Your task to perform on an android device: When is my next meeting? Image 0: 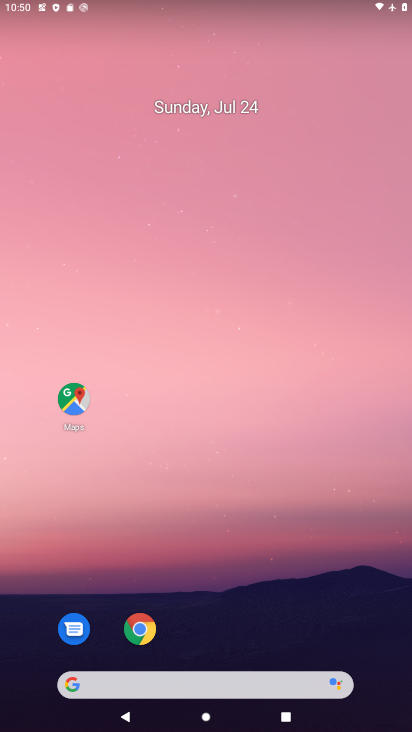
Step 0: drag from (256, 257) to (254, 96)
Your task to perform on an android device: When is my next meeting? Image 1: 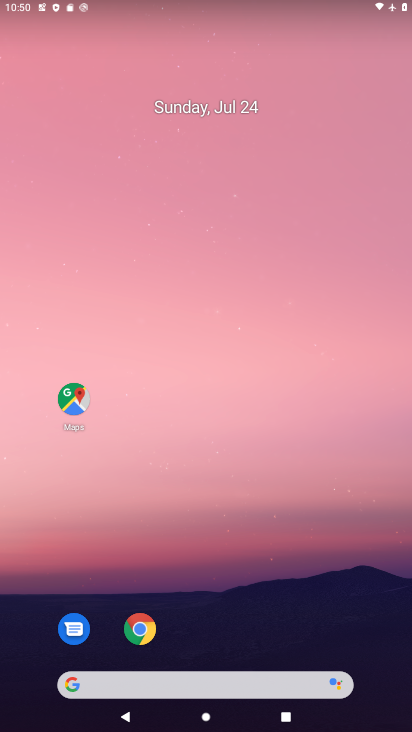
Step 1: drag from (257, 637) to (255, 4)
Your task to perform on an android device: When is my next meeting? Image 2: 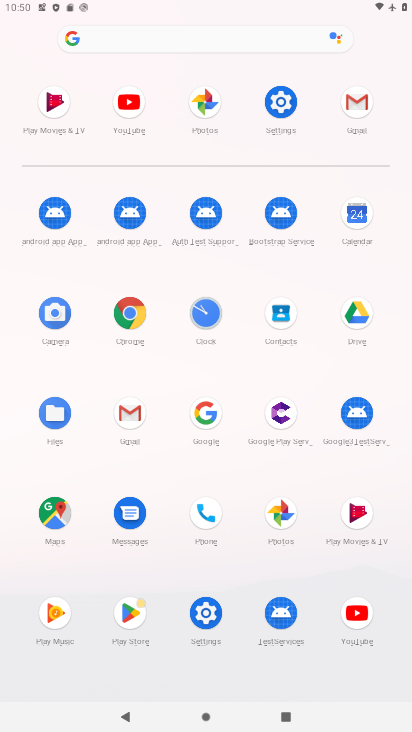
Step 2: click (354, 203)
Your task to perform on an android device: When is my next meeting? Image 3: 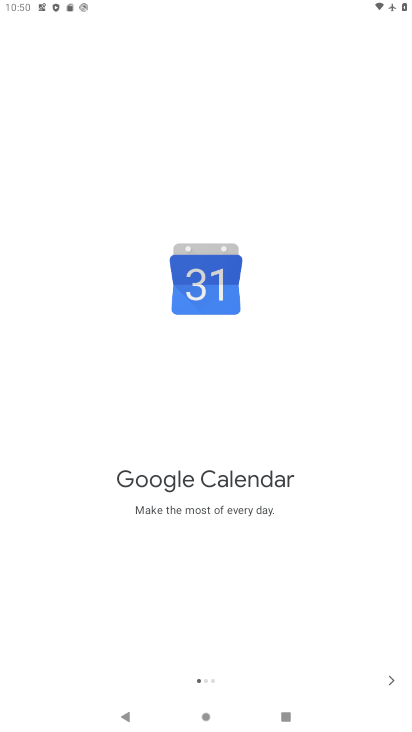
Step 3: click (385, 684)
Your task to perform on an android device: When is my next meeting? Image 4: 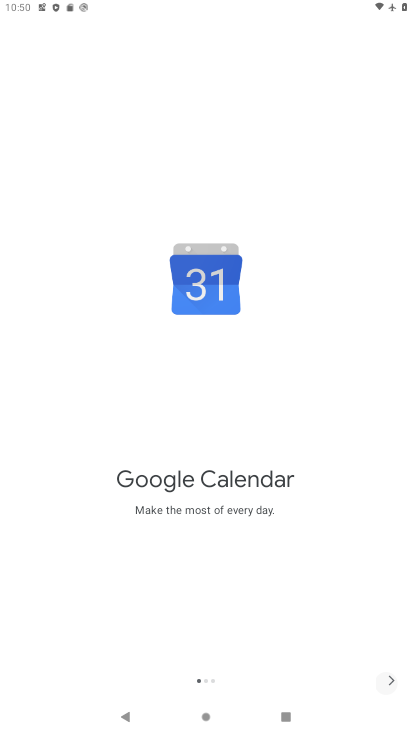
Step 4: click (385, 684)
Your task to perform on an android device: When is my next meeting? Image 5: 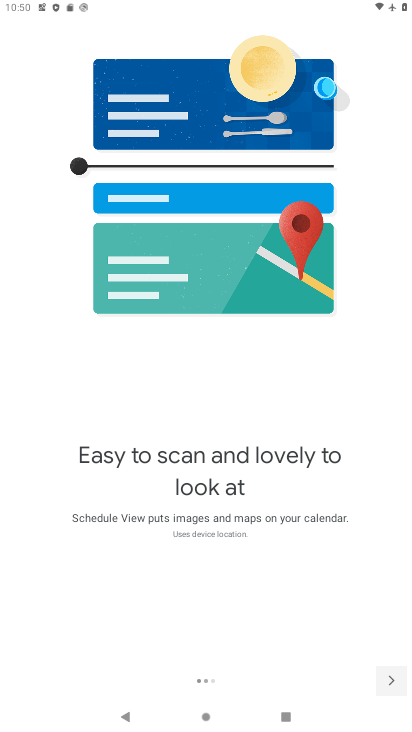
Step 5: click (385, 684)
Your task to perform on an android device: When is my next meeting? Image 6: 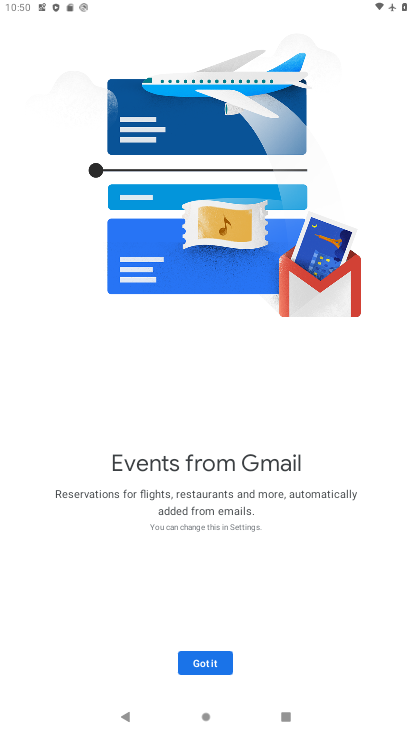
Step 6: click (219, 664)
Your task to perform on an android device: When is my next meeting? Image 7: 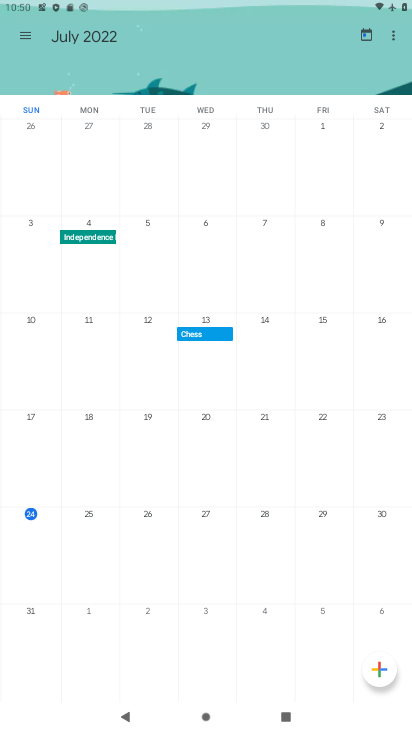
Step 7: task complete